Your task to perform on an android device: set default search engine in the chrome app Image 0: 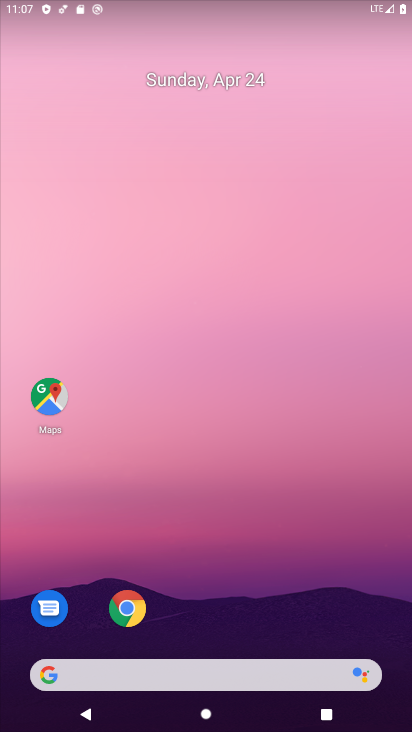
Step 0: drag from (222, 24) to (275, 12)
Your task to perform on an android device: set default search engine in the chrome app Image 1: 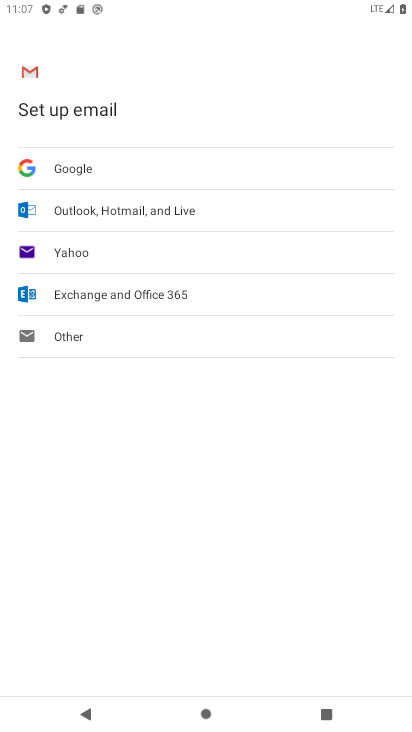
Step 1: press home button
Your task to perform on an android device: set default search engine in the chrome app Image 2: 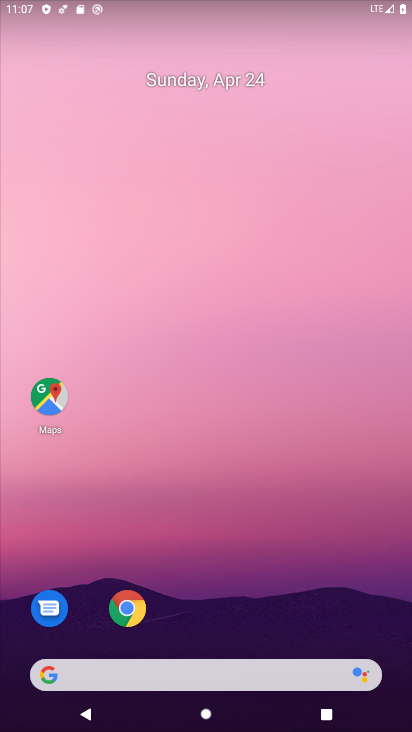
Step 2: click (136, 612)
Your task to perform on an android device: set default search engine in the chrome app Image 3: 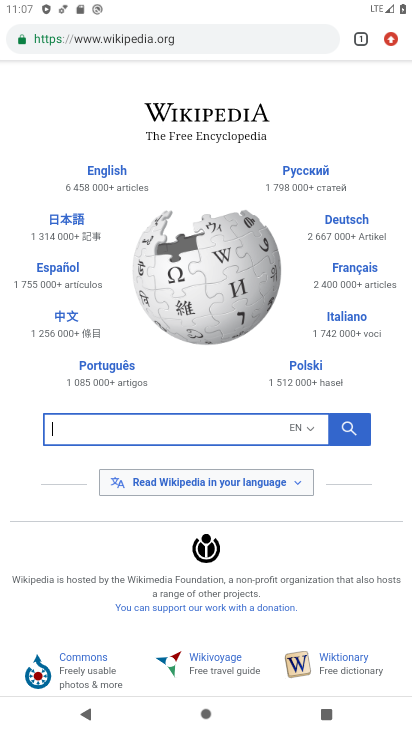
Step 3: click (390, 38)
Your task to perform on an android device: set default search engine in the chrome app Image 4: 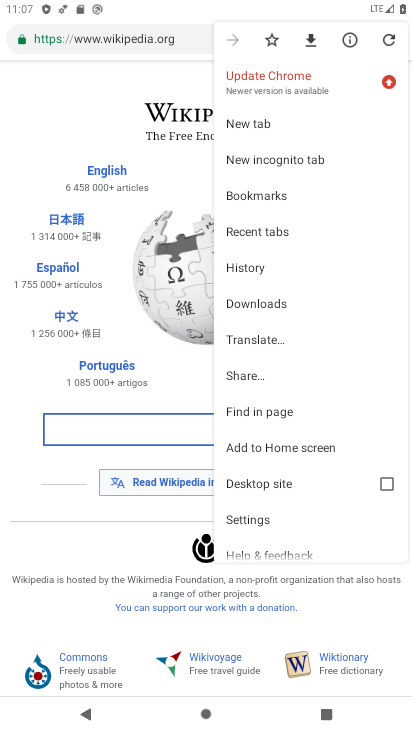
Step 4: click (253, 516)
Your task to perform on an android device: set default search engine in the chrome app Image 5: 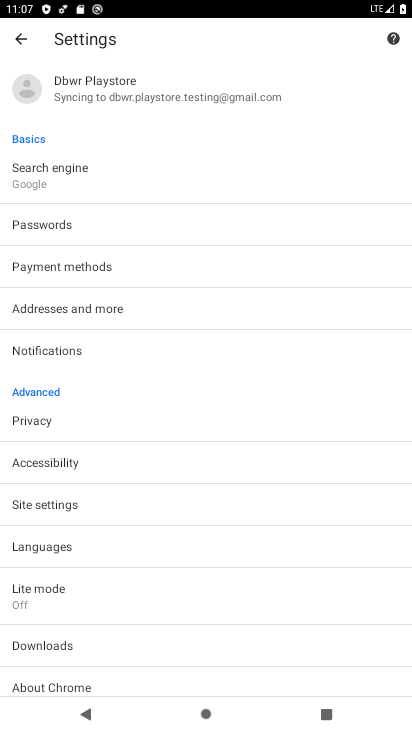
Step 5: click (83, 170)
Your task to perform on an android device: set default search engine in the chrome app Image 6: 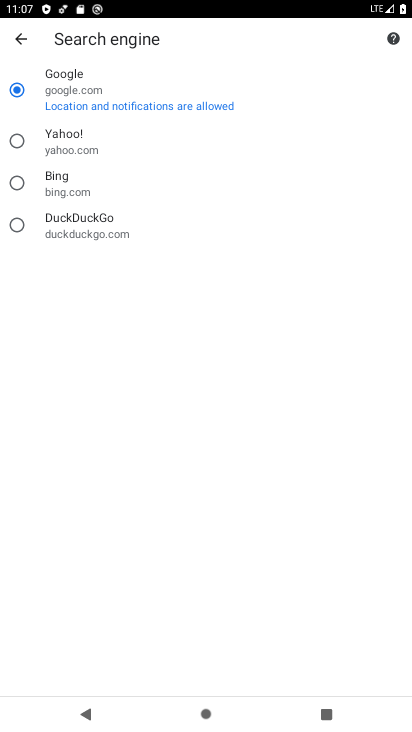
Step 6: task complete